Your task to perform on an android device: turn off javascript in the chrome app Image 0: 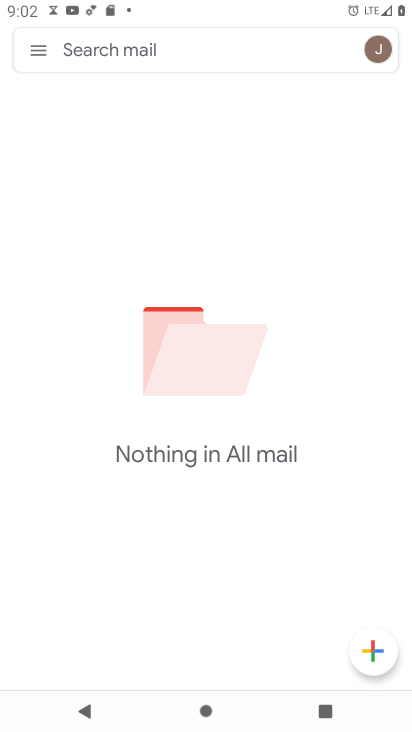
Step 0: press home button
Your task to perform on an android device: turn off javascript in the chrome app Image 1: 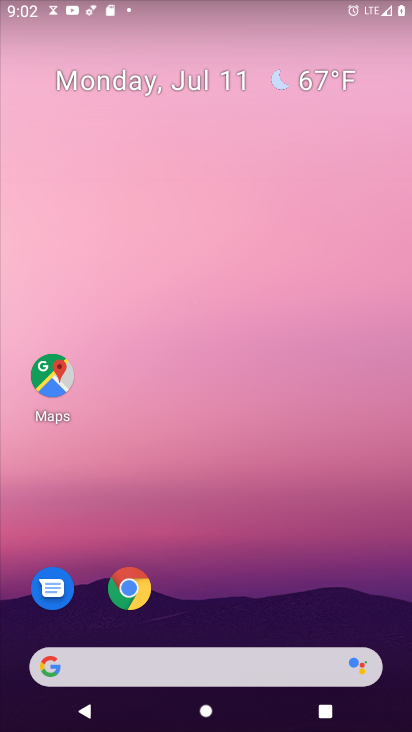
Step 1: click (136, 589)
Your task to perform on an android device: turn off javascript in the chrome app Image 2: 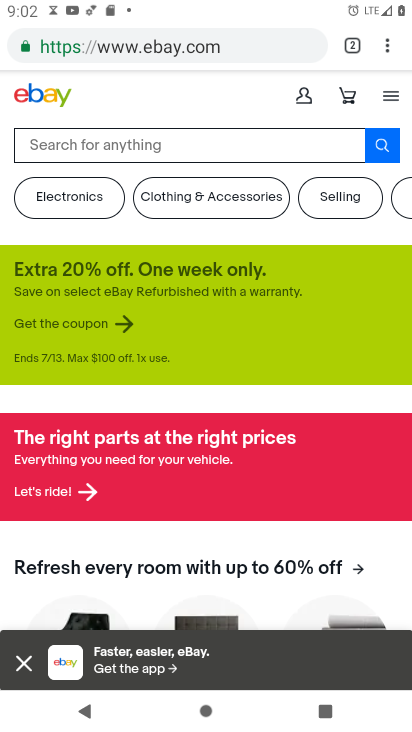
Step 2: click (385, 40)
Your task to perform on an android device: turn off javascript in the chrome app Image 3: 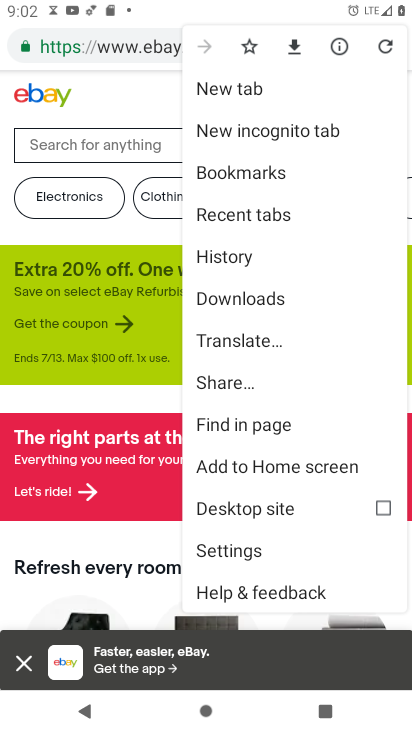
Step 3: click (235, 542)
Your task to perform on an android device: turn off javascript in the chrome app Image 4: 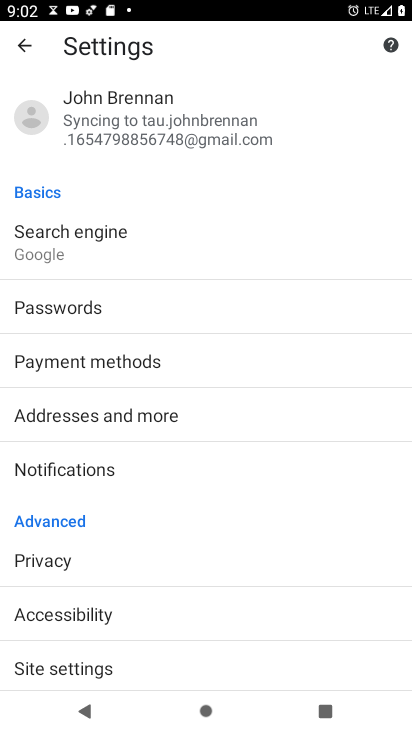
Step 4: click (90, 659)
Your task to perform on an android device: turn off javascript in the chrome app Image 5: 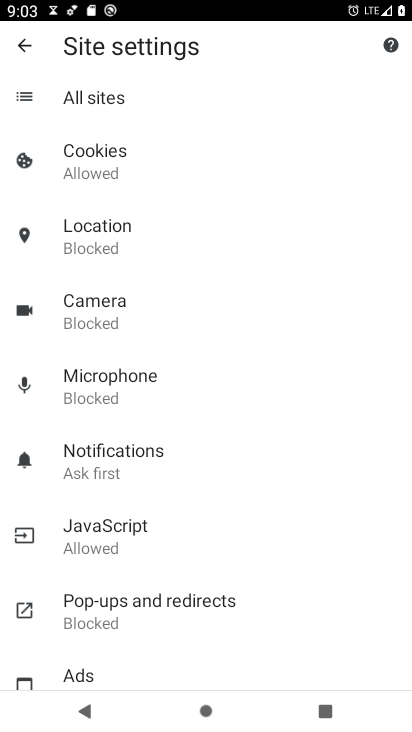
Step 5: click (104, 537)
Your task to perform on an android device: turn off javascript in the chrome app Image 6: 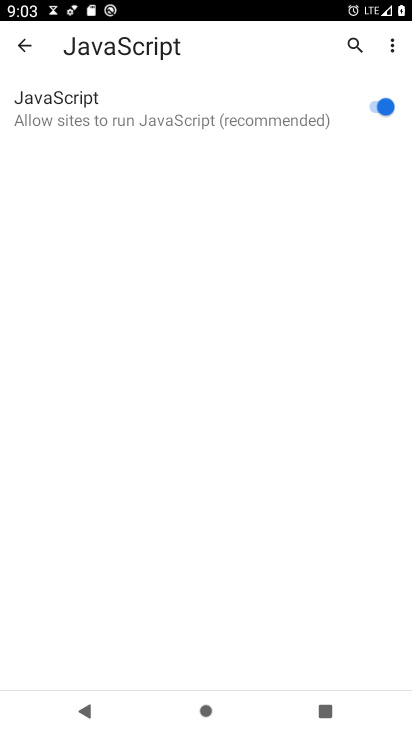
Step 6: click (382, 101)
Your task to perform on an android device: turn off javascript in the chrome app Image 7: 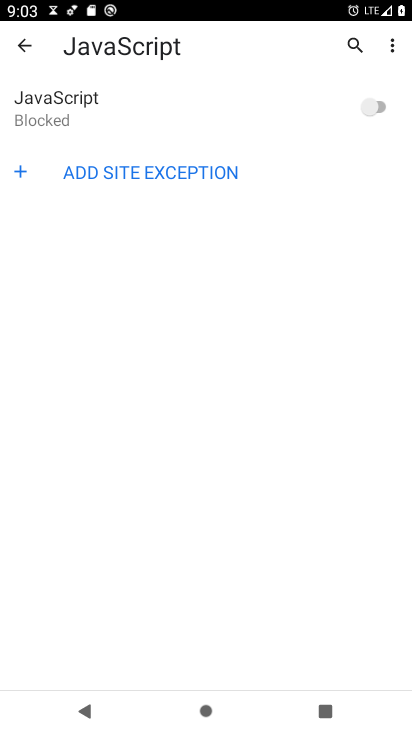
Step 7: task complete